Your task to perform on an android device: Go to internet settings Image 0: 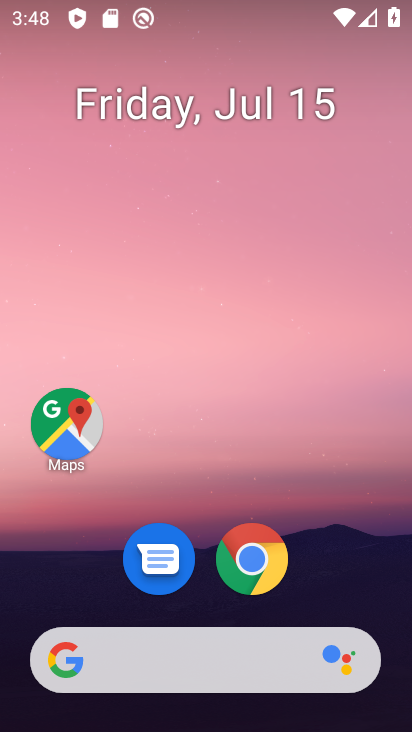
Step 0: drag from (88, 559) to (259, 83)
Your task to perform on an android device: Go to internet settings Image 1: 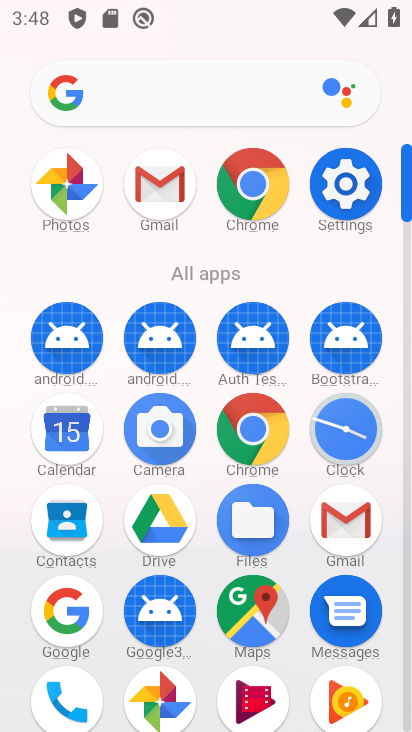
Step 1: click (343, 177)
Your task to perform on an android device: Go to internet settings Image 2: 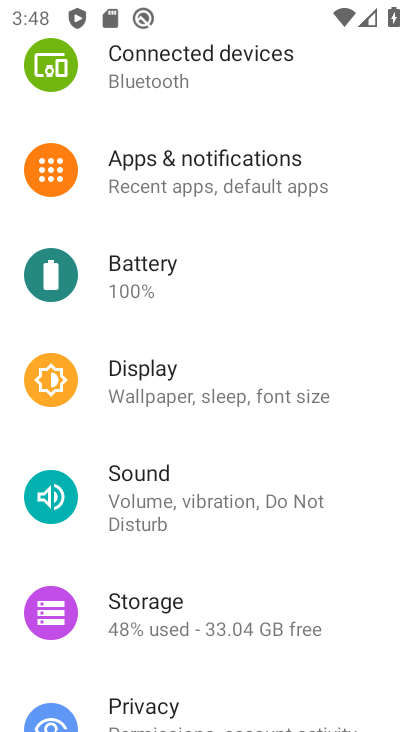
Step 2: drag from (224, 180) to (229, 730)
Your task to perform on an android device: Go to internet settings Image 3: 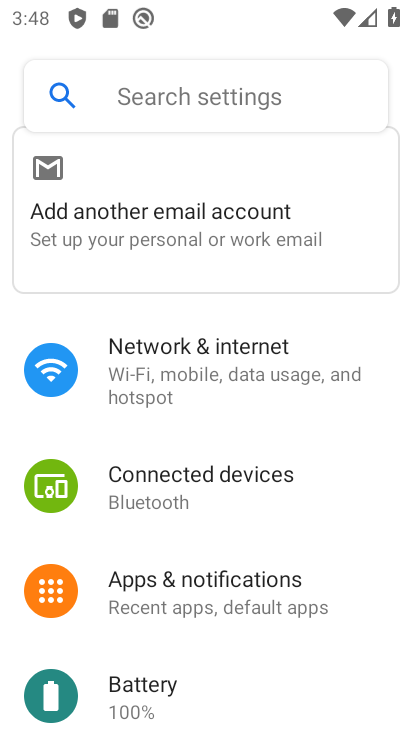
Step 3: click (166, 371)
Your task to perform on an android device: Go to internet settings Image 4: 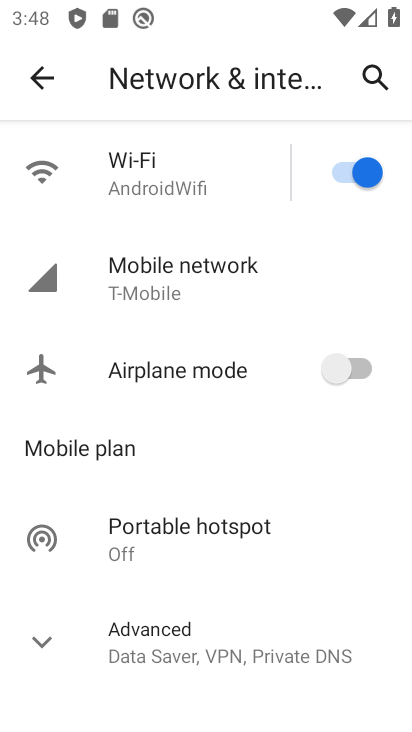
Step 4: task complete